Your task to perform on an android device: open a new tab in the chrome app Image 0: 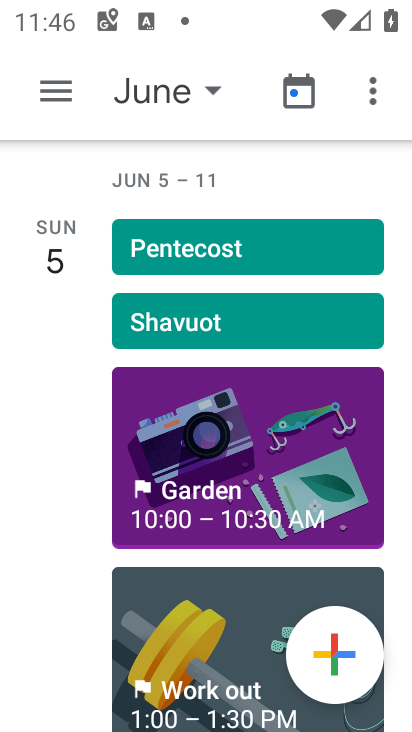
Step 0: press home button
Your task to perform on an android device: open a new tab in the chrome app Image 1: 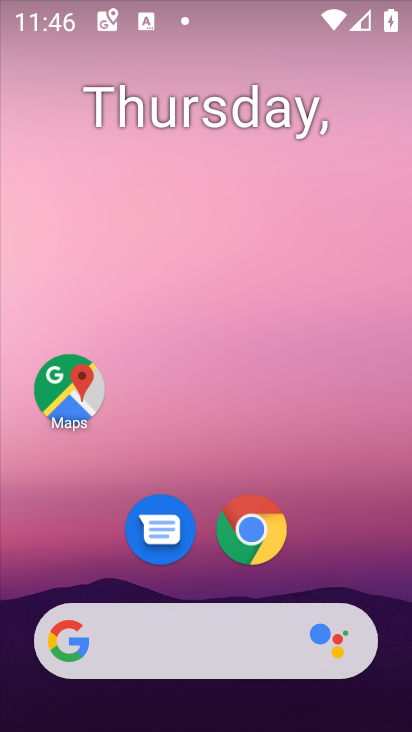
Step 1: click (256, 546)
Your task to perform on an android device: open a new tab in the chrome app Image 2: 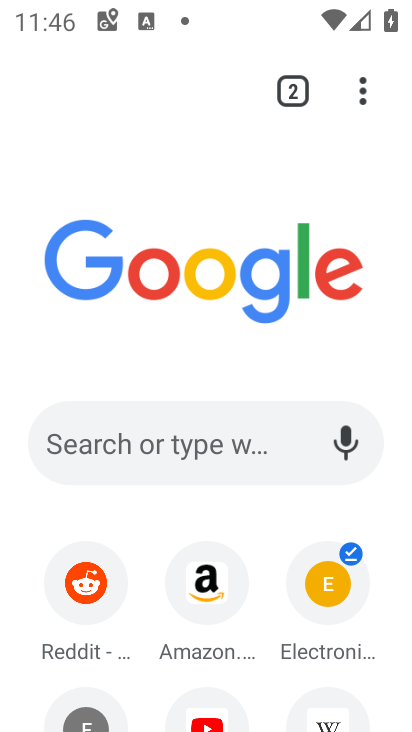
Step 2: drag from (309, 94) to (236, 389)
Your task to perform on an android device: open a new tab in the chrome app Image 3: 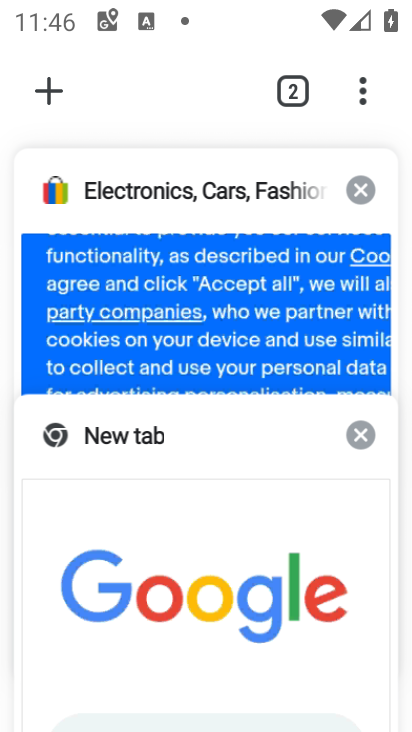
Step 3: click (60, 116)
Your task to perform on an android device: open a new tab in the chrome app Image 4: 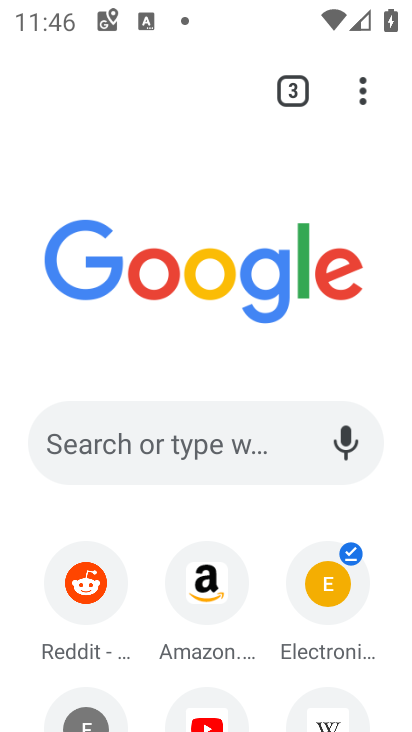
Step 4: task complete